Your task to perform on an android device: Go to internet settings Image 0: 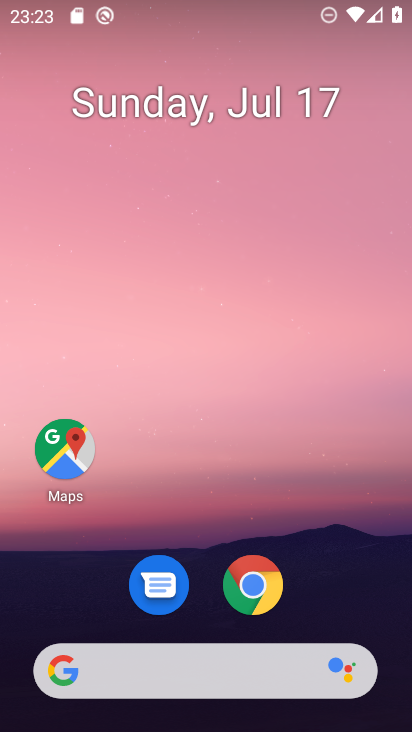
Step 0: press home button
Your task to perform on an android device: Go to internet settings Image 1: 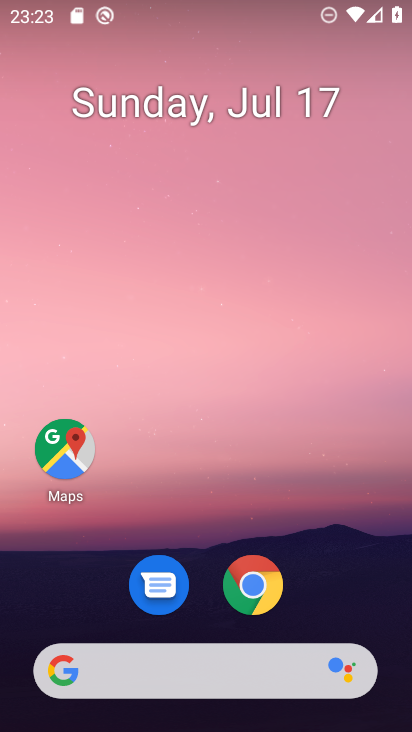
Step 1: drag from (219, 677) to (309, 136)
Your task to perform on an android device: Go to internet settings Image 2: 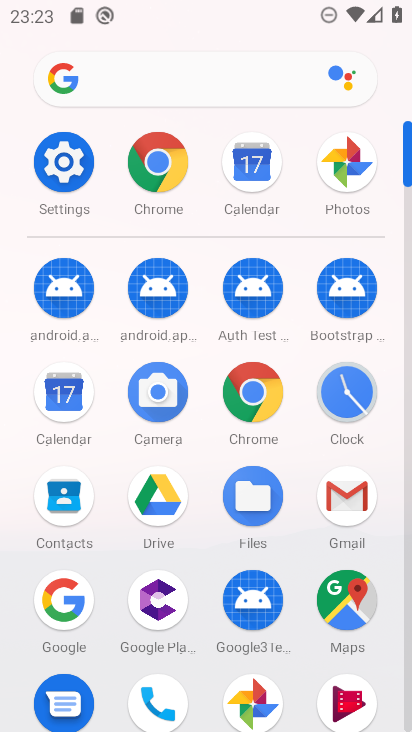
Step 2: click (68, 169)
Your task to perform on an android device: Go to internet settings Image 3: 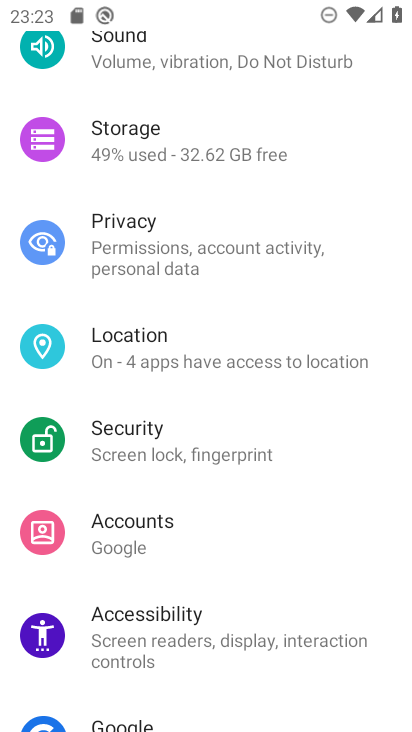
Step 3: drag from (325, 137) to (267, 586)
Your task to perform on an android device: Go to internet settings Image 4: 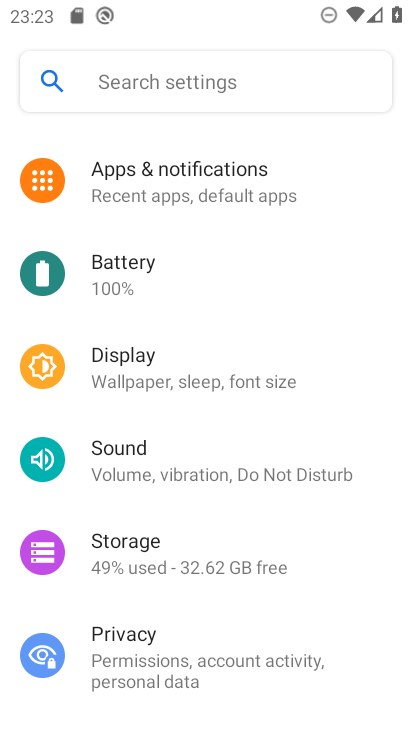
Step 4: drag from (308, 219) to (260, 612)
Your task to perform on an android device: Go to internet settings Image 5: 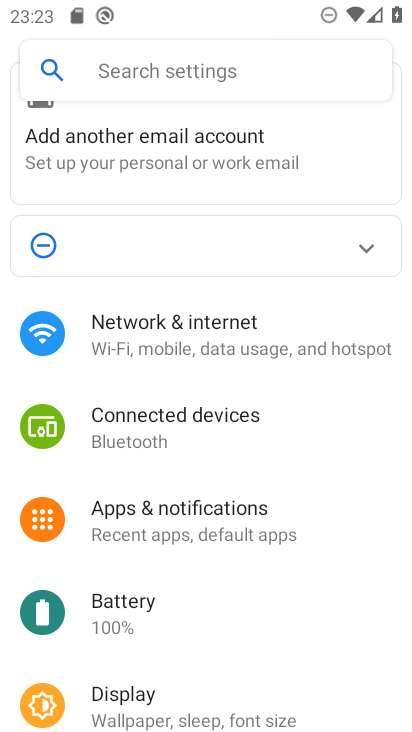
Step 5: click (226, 333)
Your task to perform on an android device: Go to internet settings Image 6: 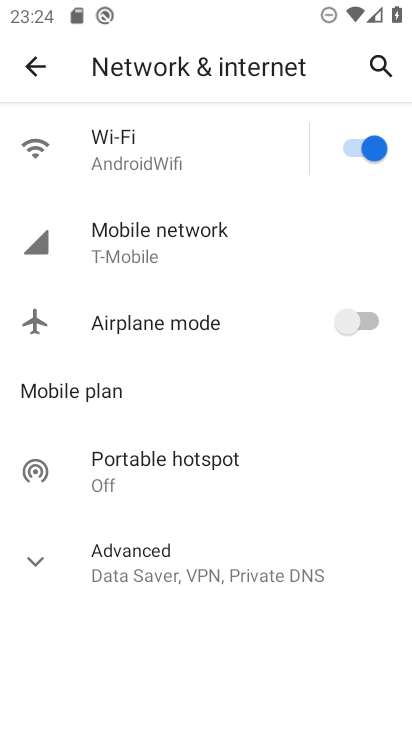
Step 6: task complete